Your task to perform on an android device: turn notification dots off Image 0: 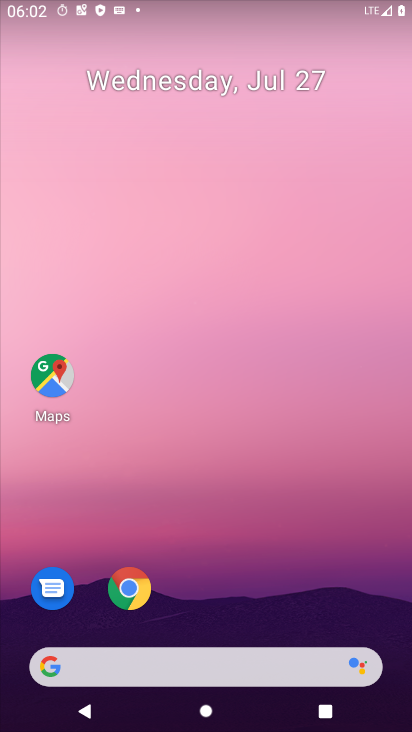
Step 0: drag from (218, 654) to (261, 1)
Your task to perform on an android device: turn notification dots off Image 1: 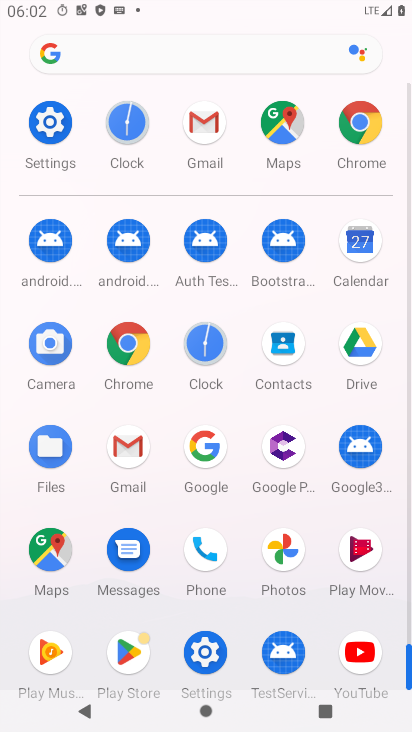
Step 1: click (50, 127)
Your task to perform on an android device: turn notification dots off Image 2: 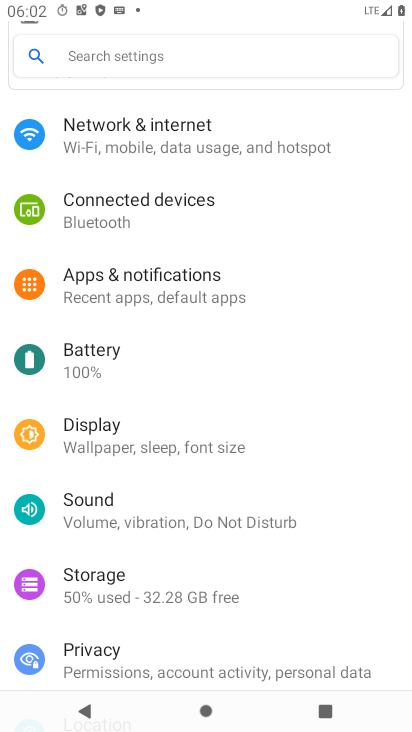
Step 2: click (174, 273)
Your task to perform on an android device: turn notification dots off Image 3: 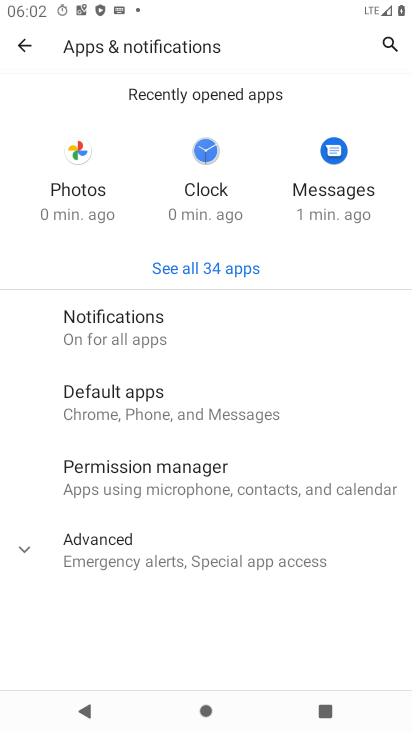
Step 3: click (185, 565)
Your task to perform on an android device: turn notification dots off Image 4: 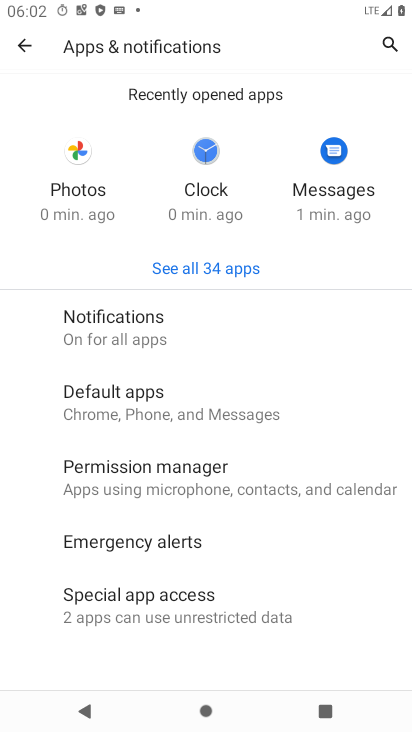
Step 4: click (149, 332)
Your task to perform on an android device: turn notification dots off Image 5: 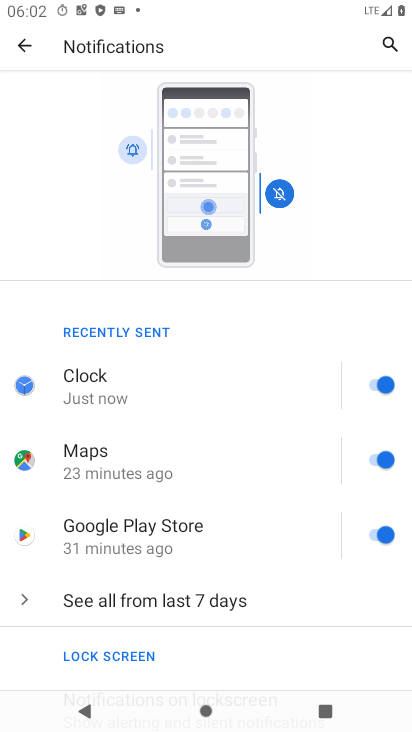
Step 5: drag from (234, 658) to (262, 320)
Your task to perform on an android device: turn notification dots off Image 6: 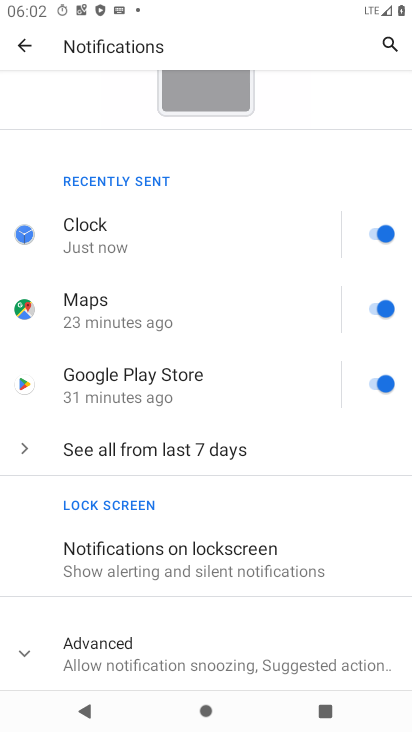
Step 6: click (250, 565)
Your task to perform on an android device: turn notification dots off Image 7: 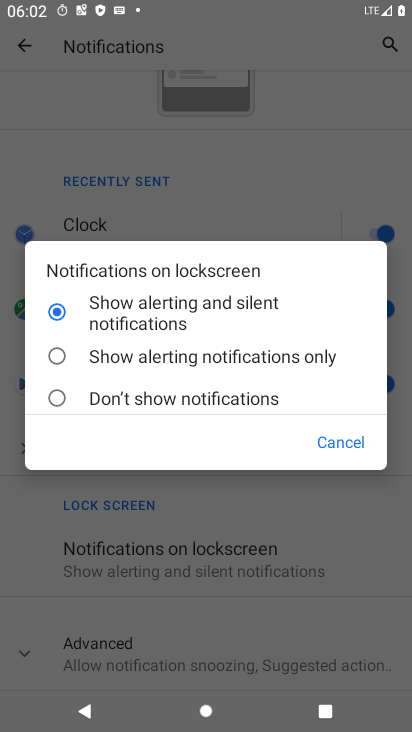
Step 7: click (291, 574)
Your task to perform on an android device: turn notification dots off Image 8: 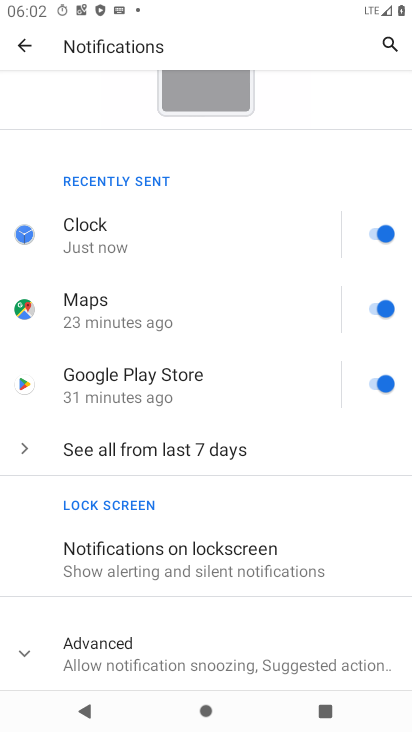
Step 8: click (155, 653)
Your task to perform on an android device: turn notification dots off Image 9: 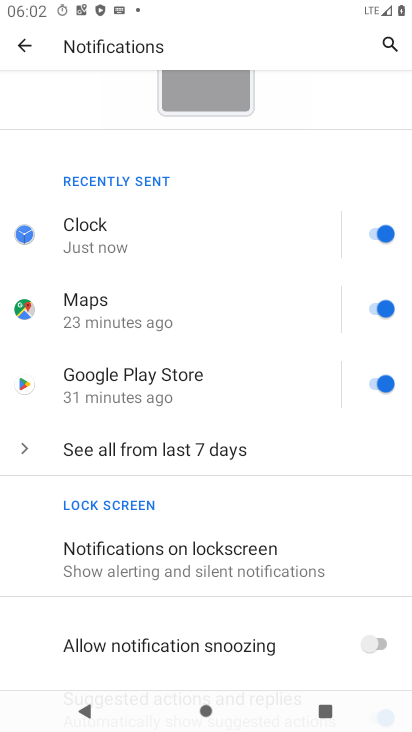
Step 9: drag from (169, 604) to (312, 124)
Your task to perform on an android device: turn notification dots off Image 10: 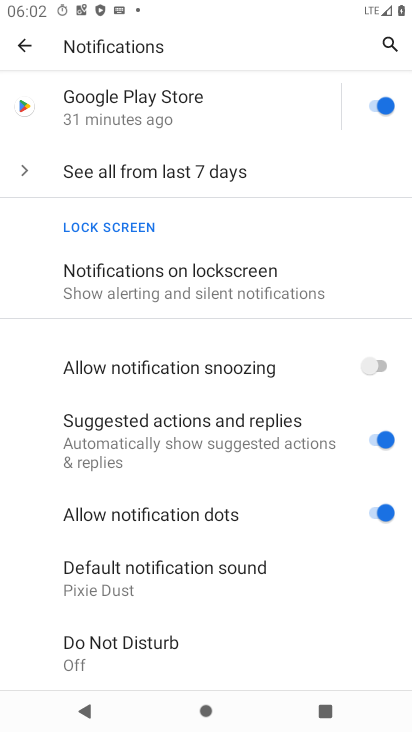
Step 10: click (374, 508)
Your task to perform on an android device: turn notification dots off Image 11: 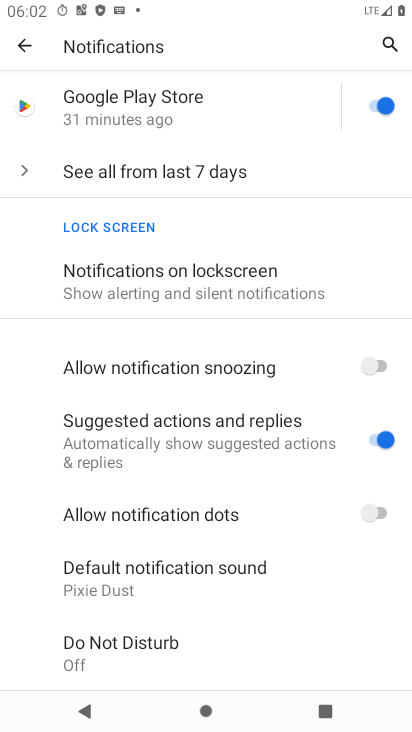
Step 11: task complete